Your task to perform on an android device: toggle notification dots Image 0: 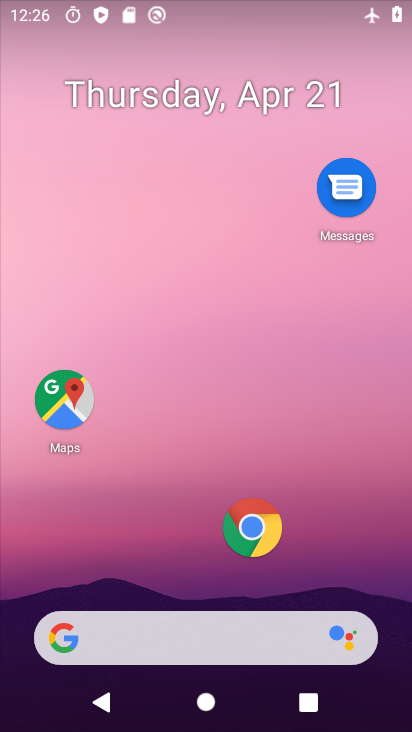
Step 0: drag from (351, 575) to (358, 77)
Your task to perform on an android device: toggle notification dots Image 1: 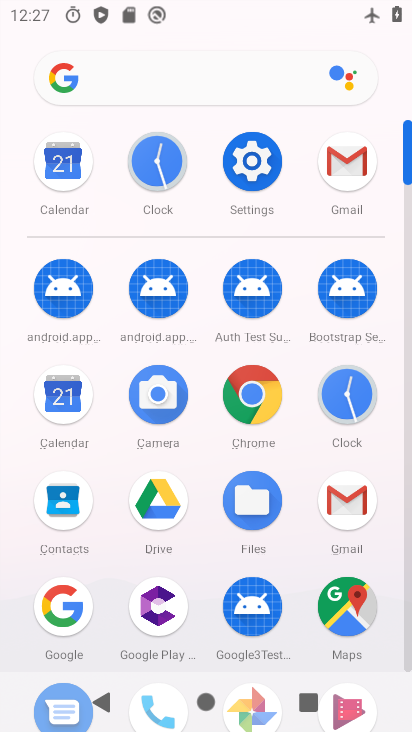
Step 1: click (270, 148)
Your task to perform on an android device: toggle notification dots Image 2: 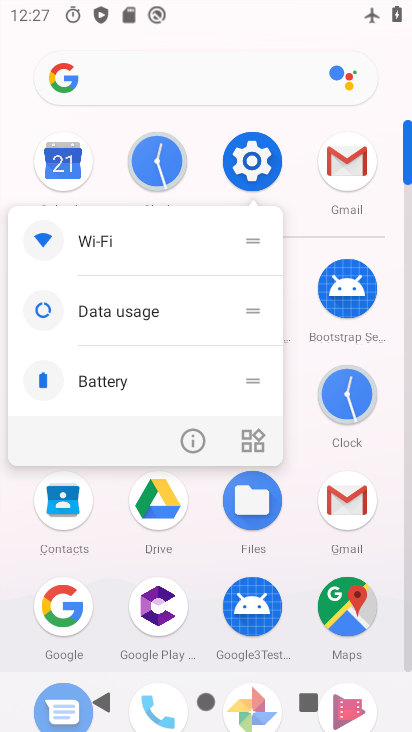
Step 2: click (270, 148)
Your task to perform on an android device: toggle notification dots Image 3: 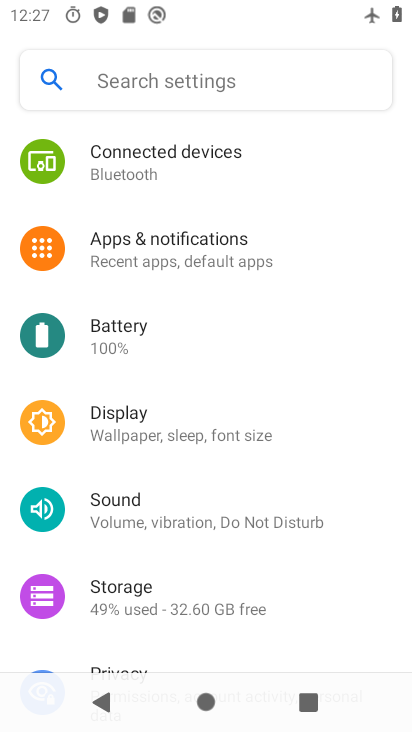
Step 3: click (261, 264)
Your task to perform on an android device: toggle notification dots Image 4: 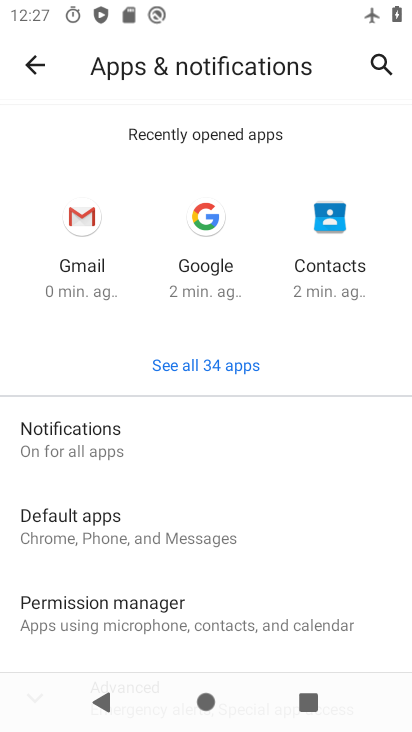
Step 4: click (249, 463)
Your task to perform on an android device: toggle notification dots Image 5: 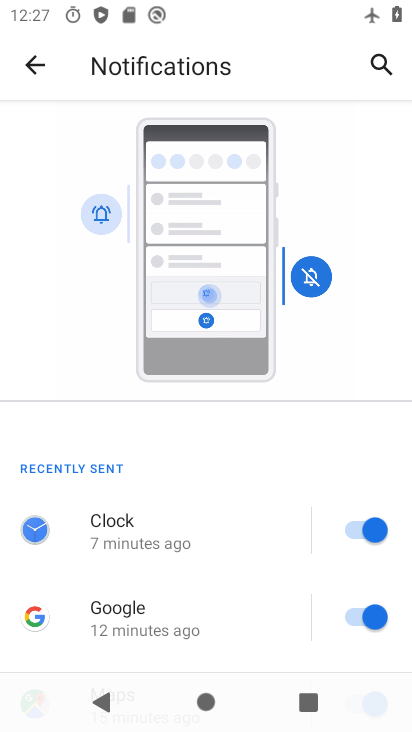
Step 5: drag from (248, 602) to (285, 481)
Your task to perform on an android device: toggle notification dots Image 6: 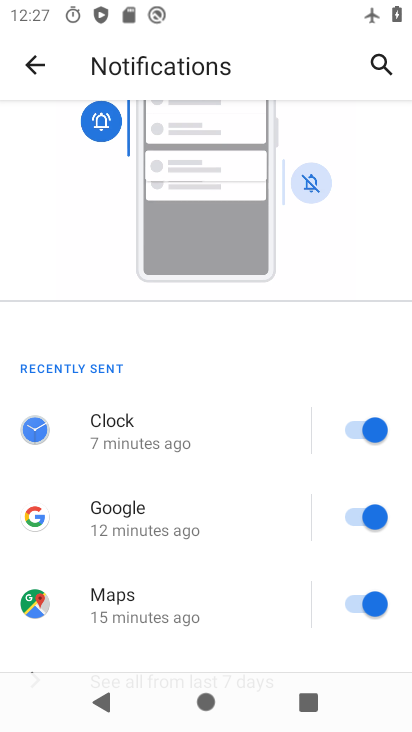
Step 6: drag from (258, 599) to (277, 441)
Your task to perform on an android device: toggle notification dots Image 7: 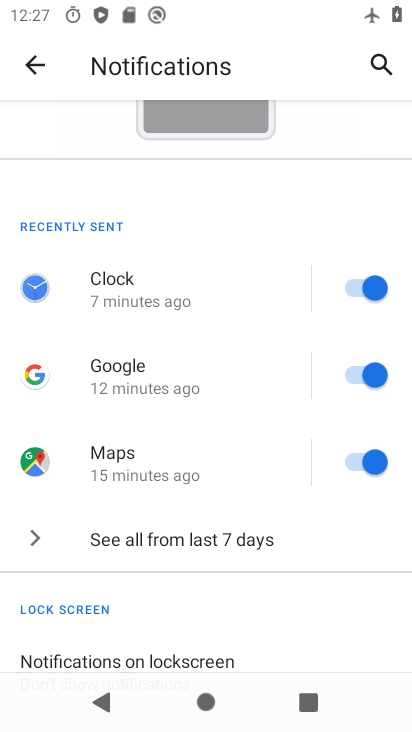
Step 7: drag from (272, 588) to (295, 431)
Your task to perform on an android device: toggle notification dots Image 8: 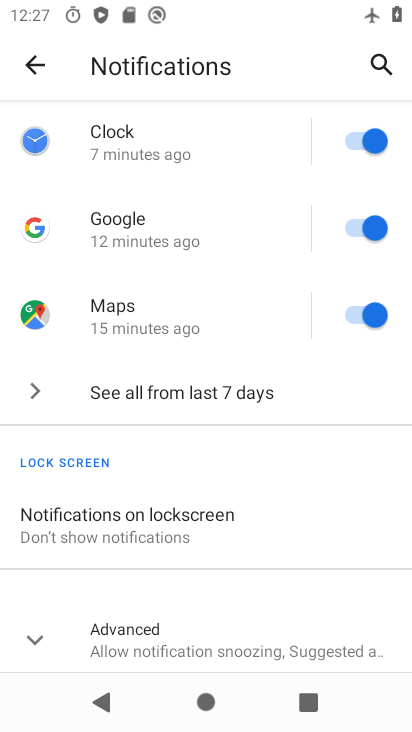
Step 8: click (340, 610)
Your task to perform on an android device: toggle notification dots Image 9: 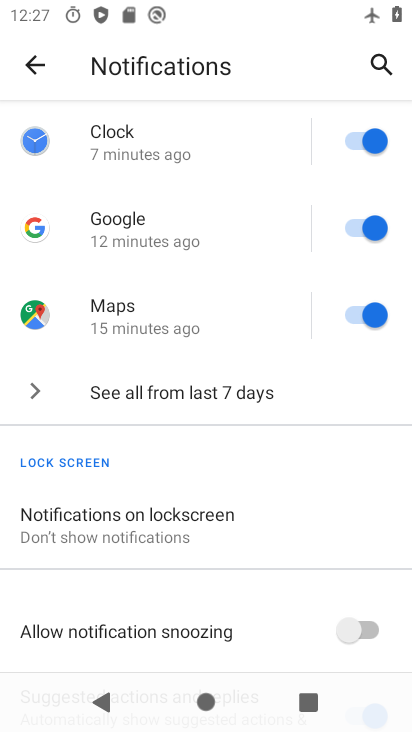
Step 9: drag from (198, 618) to (237, 391)
Your task to perform on an android device: toggle notification dots Image 10: 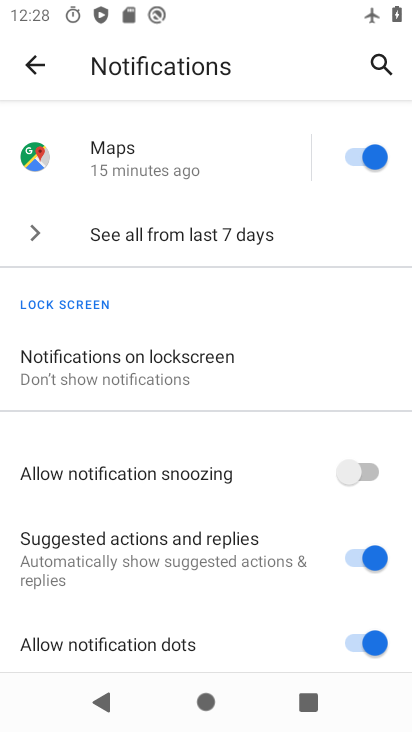
Step 10: click (357, 641)
Your task to perform on an android device: toggle notification dots Image 11: 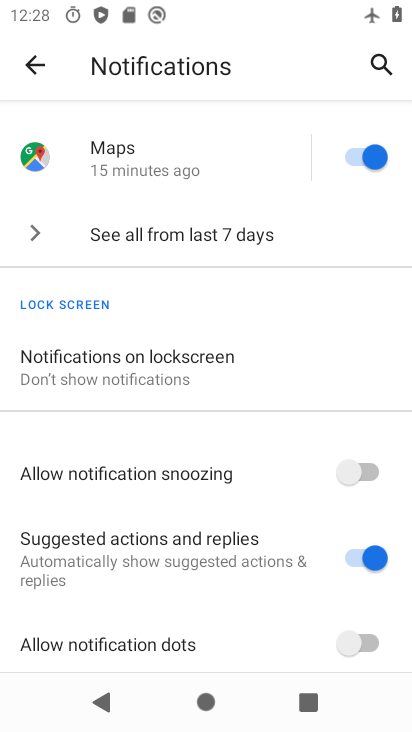
Step 11: task complete